Your task to perform on an android device: check battery use Image 0: 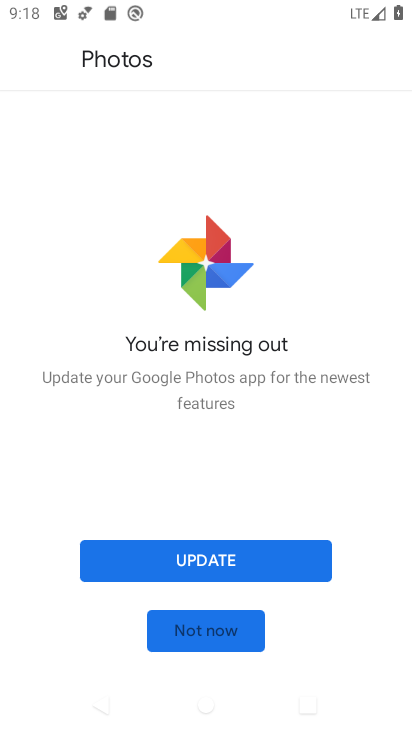
Step 0: click (204, 631)
Your task to perform on an android device: check battery use Image 1: 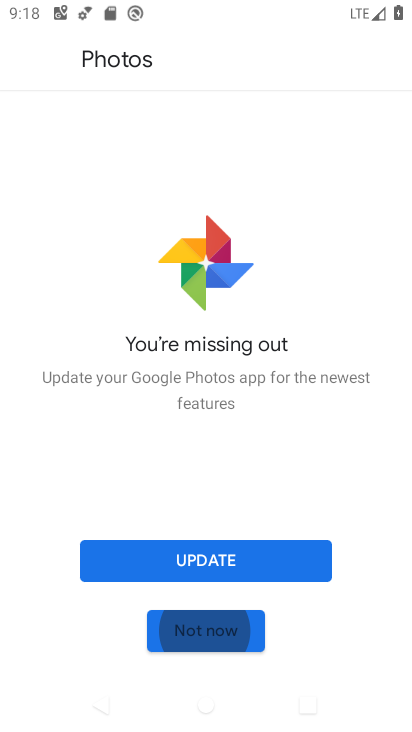
Step 1: click (204, 631)
Your task to perform on an android device: check battery use Image 2: 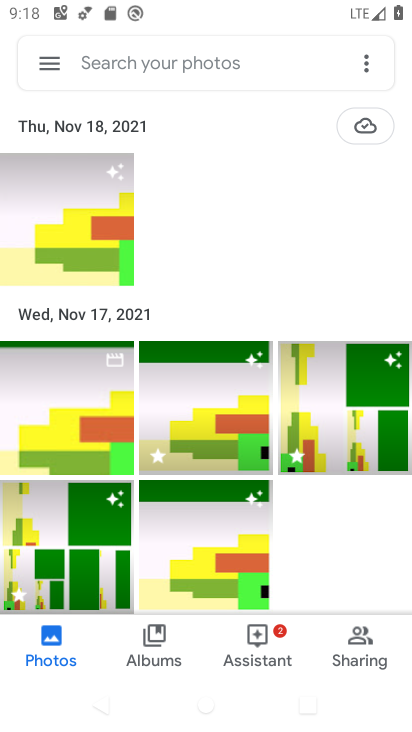
Step 2: press back button
Your task to perform on an android device: check battery use Image 3: 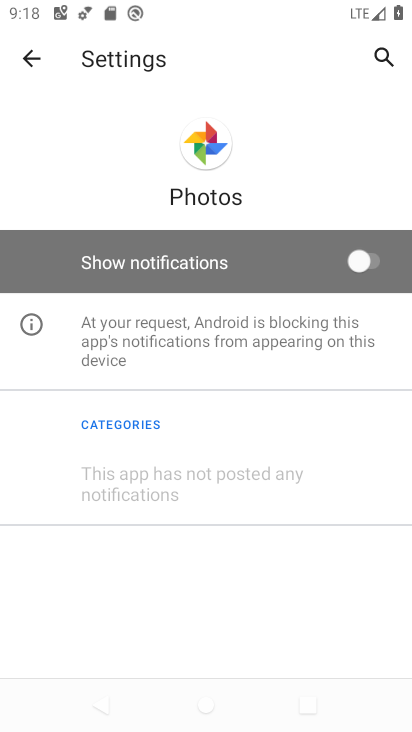
Step 3: press home button
Your task to perform on an android device: check battery use Image 4: 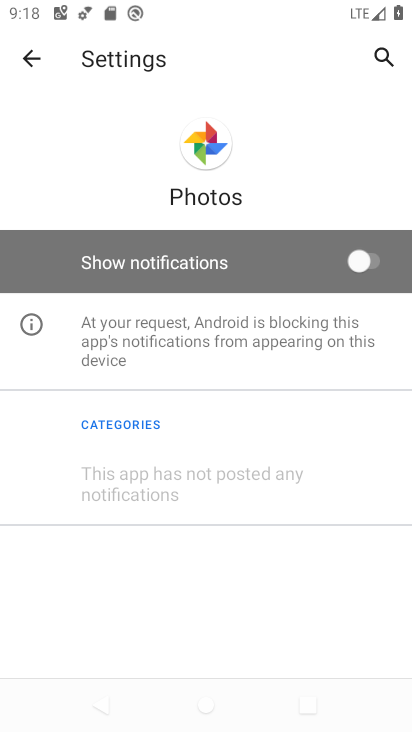
Step 4: press home button
Your task to perform on an android device: check battery use Image 5: 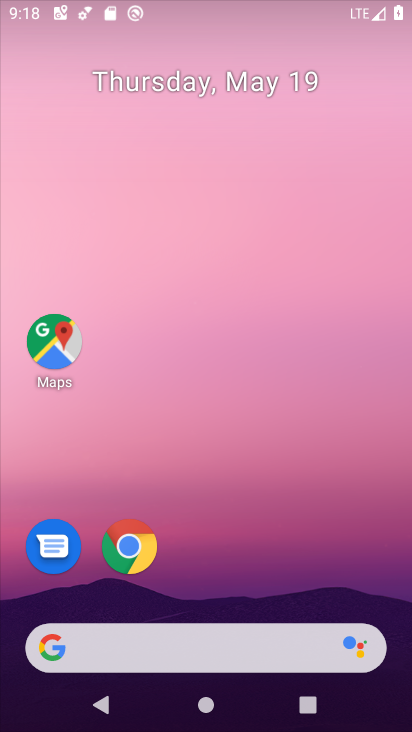
Step 5: click (36, 50)
Your task to perform on an android device: check battery use Image 6: 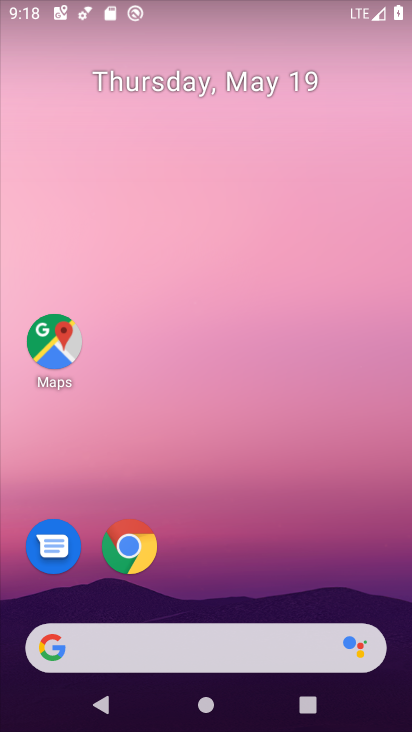
Step 6: drag from (267, 698) to (202, 353)
Your task to perform on an android device: check battery use Image 7: 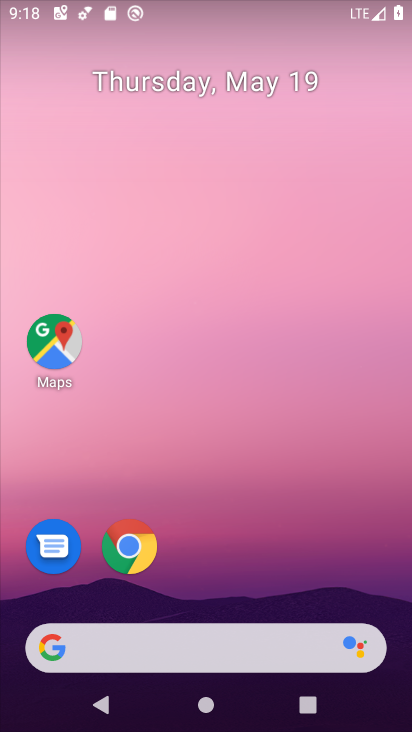
Step 7: drag from (231, 572) to (144, 227)
Your task to perform on an android device: check battery use Image 8: 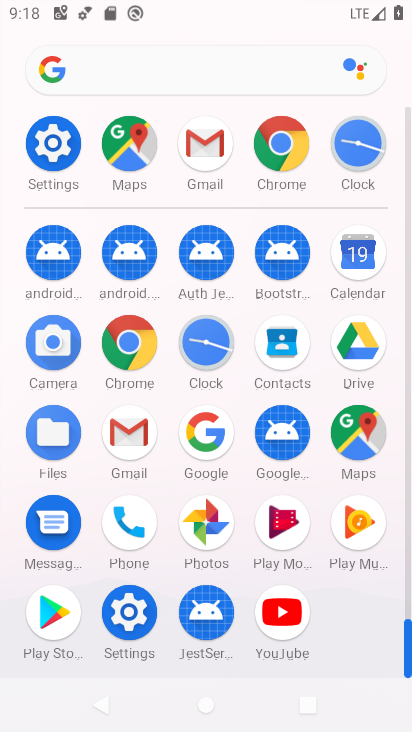
Step 8: click (40, 135)
Your task to perform on an android device: check battery use Image 9: 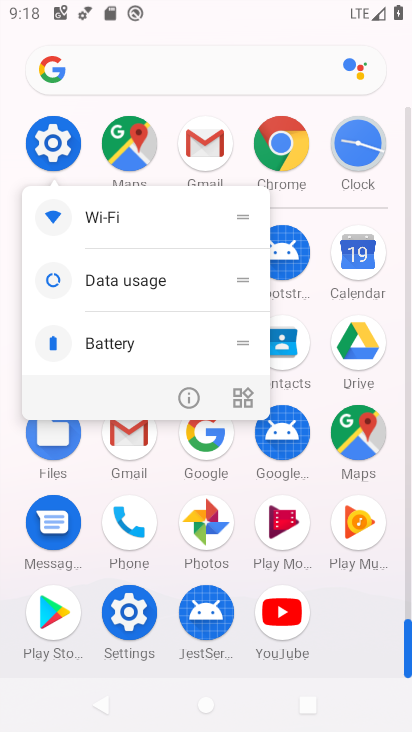
Step 9: click (47, 136)
Your task to perform on an android device: check battery use Image 10: 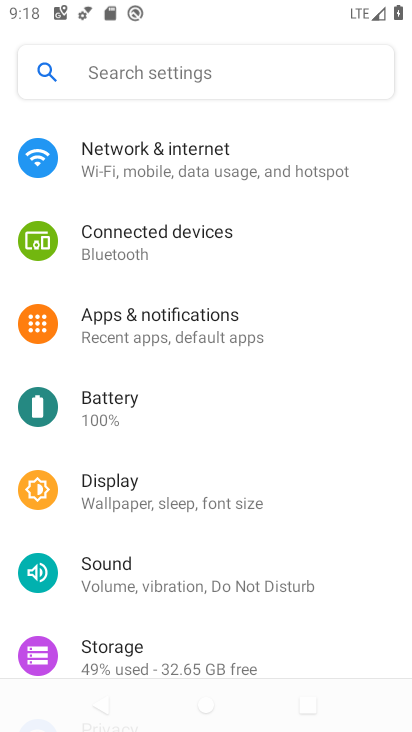
Step 10: click (47, 136)
Your task to perform on an android device: check battery use Image 11: 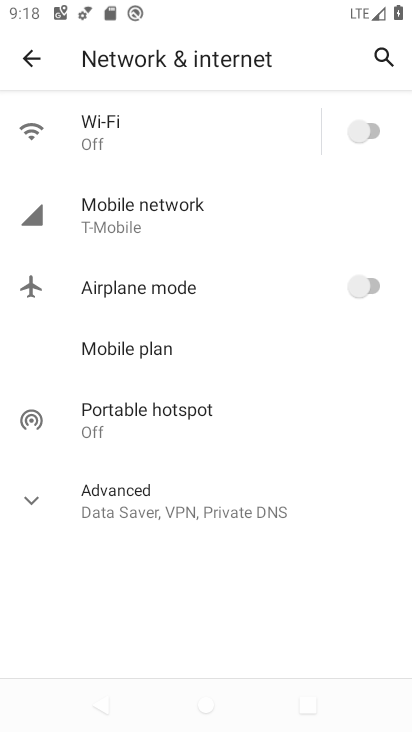
Step 11: click (24, 58)
Your task to perform on an android device: check battery use Image 12: 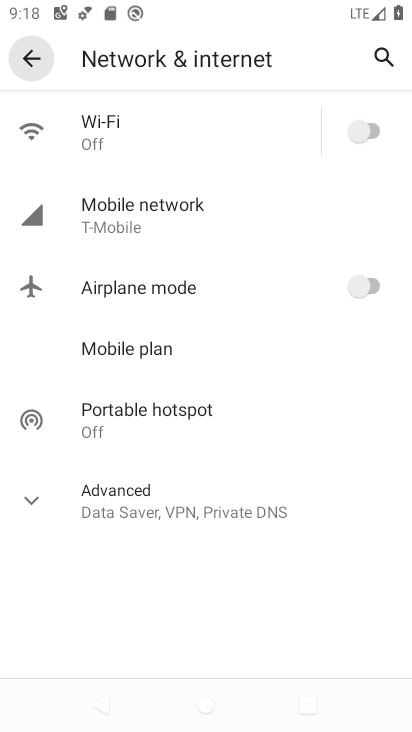
Step 12: click (24, 58)
Your task to perform on an android device: check battery use Image 13: 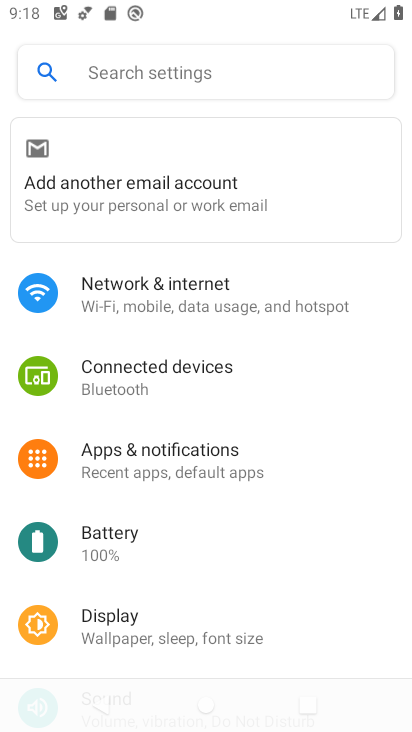
Step 13: drag from (178, 529) to (151, 324)
Your task to perform on an android device: check battery use Image 14: 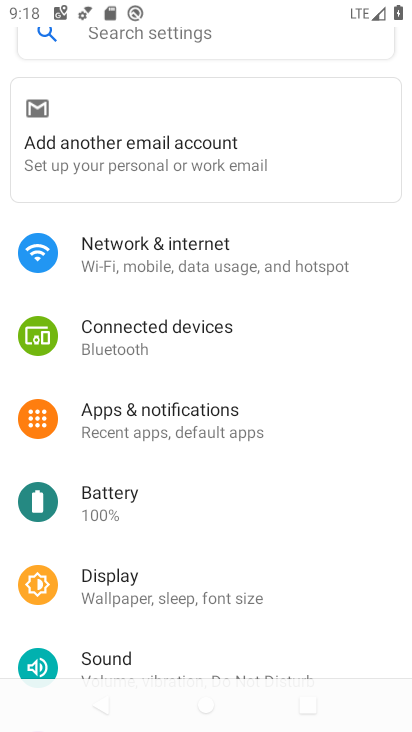
Step 14: drag from (150, 619) to (152, 249)
Your task to perform on an android device: check battery use Image 15: 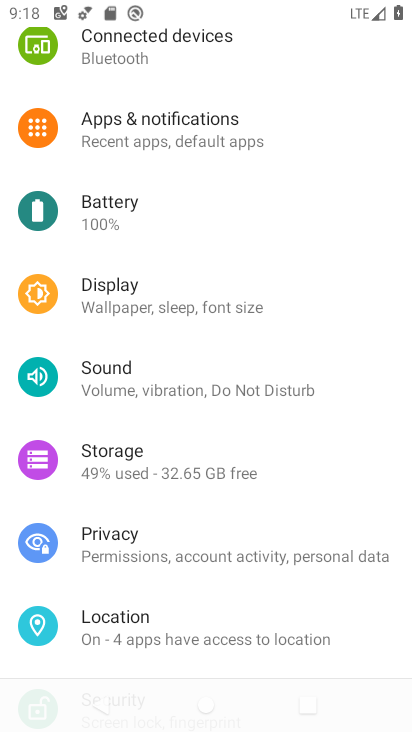
Step 15: click (99, 206)
Your task to perform on an android device: check battery use Image 16: 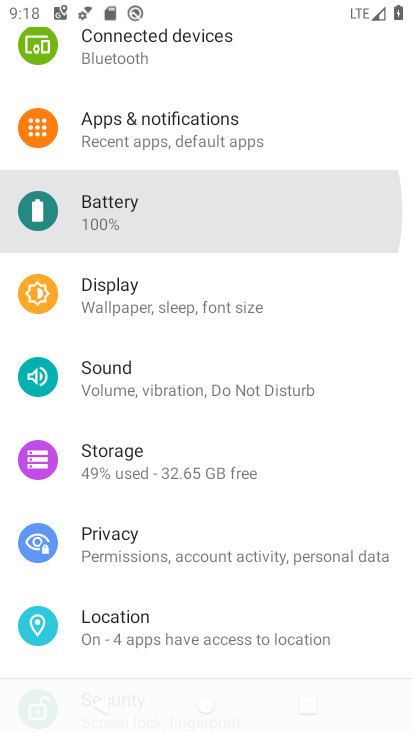
Step 16: click (99, 206)
Your task to perform on an android device: check battery use Image 17: 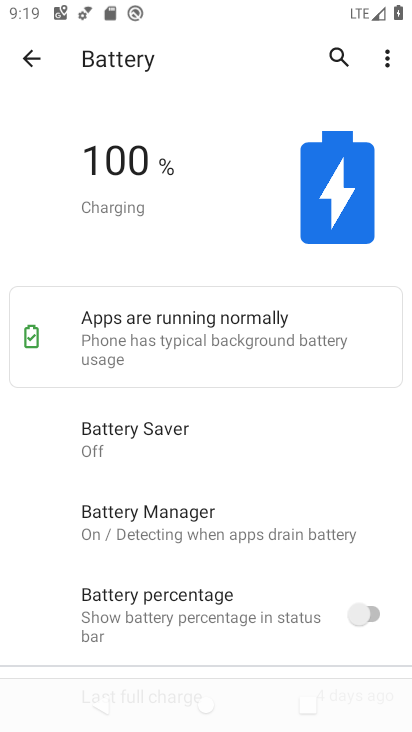
Step 17: task complete